Your task to perform on an android device: toggle pop-ups in chrome Image 0: 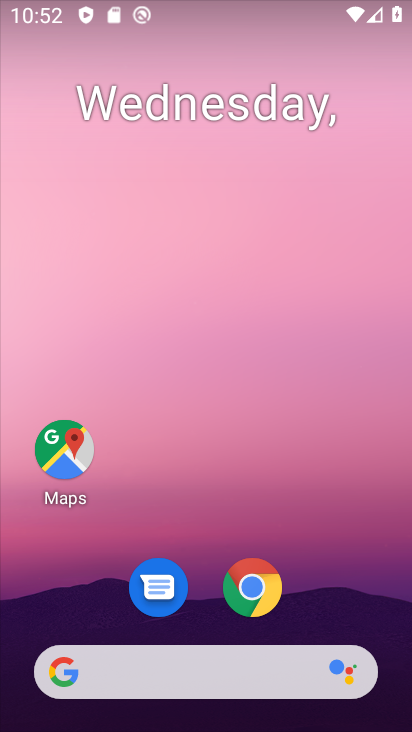
Step 0: click (253, 586)
Your task to perform on an android device: toggle pop-ups in chrome Image 1: 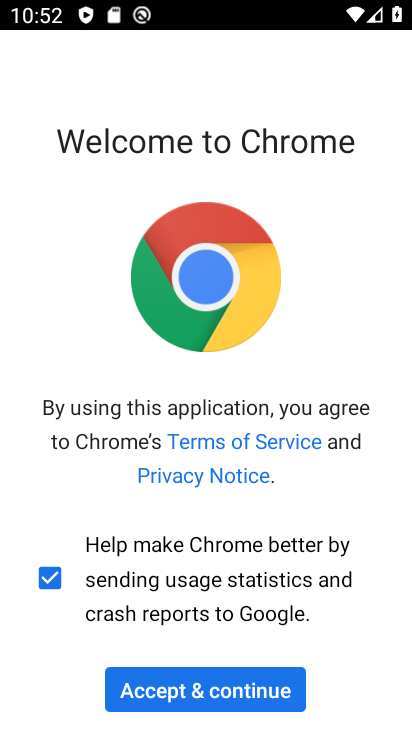
Step 1: click (214, 692)
Your task to perform on an android device: toggle pop-ups in chrome Image 2: 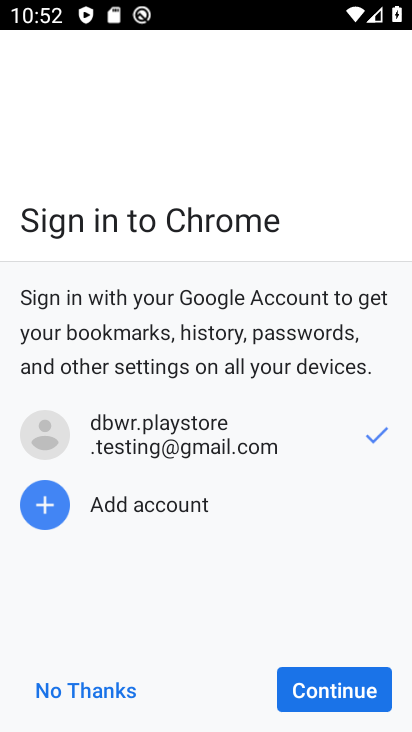
Step 2: click (321, 686)
Your task to perform on an android device: toggle pop-ups in chrome Image 3: 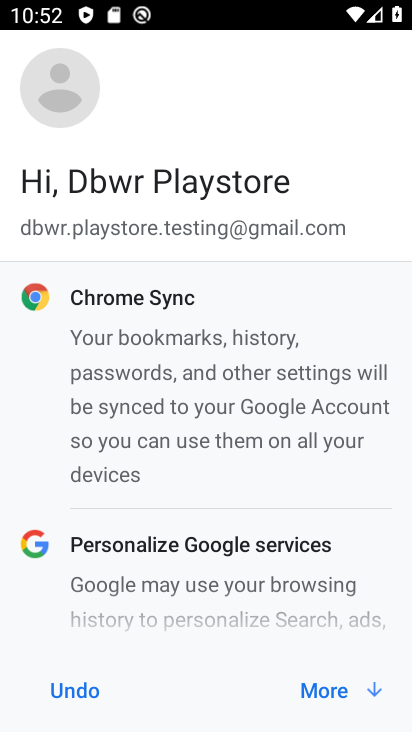
Step 3: click (330, 690)
Your task to perform on an android device: toggle pop-ups in chrome Image 4: 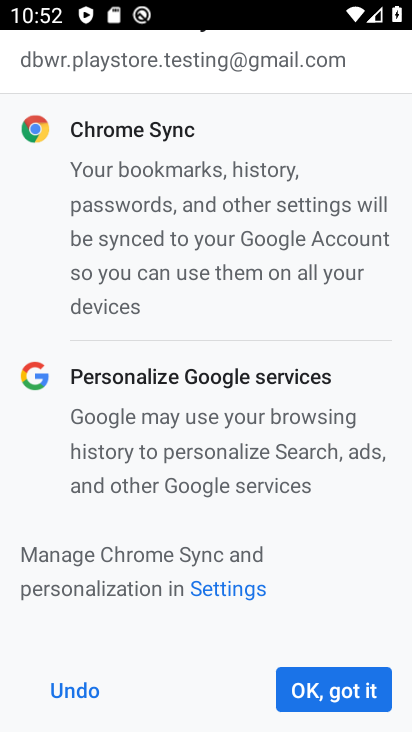
Step 4: click (330, 690)
Your task to perform on an android device: toggle pop-ups in chrome Image 5: 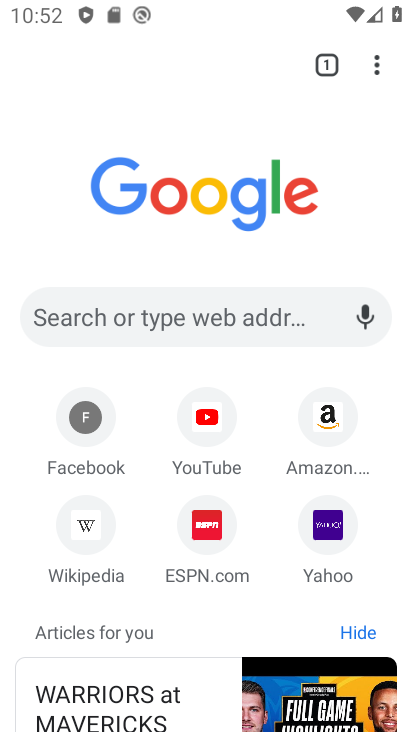
Step 5: click (376, 66)
Your task to perform on an android device: toggle pop-ups in chrome Image 6: 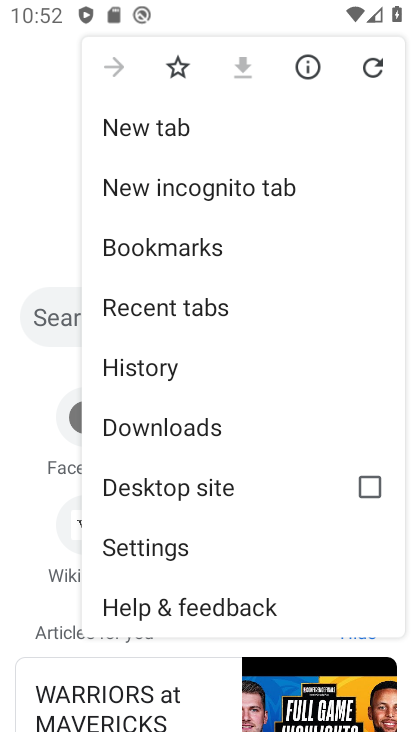
Step 6: click (164, 542)
Your task to perform on an android device: toggle pop-ups in chrome Image 7: 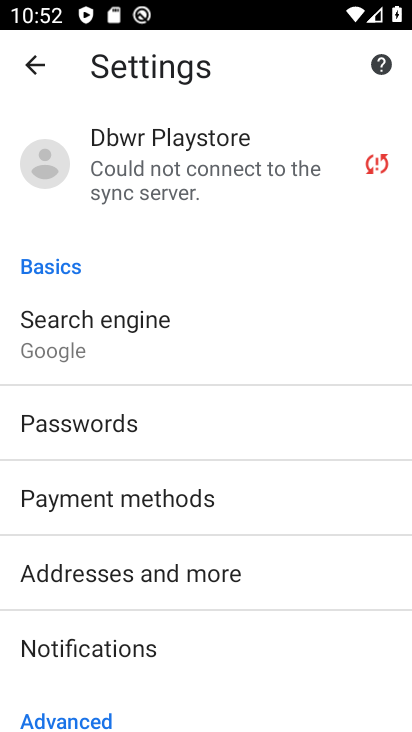
Step 7: drag from (183, 586) to (231, 529)
Your task to perform on an android device: toggle pop-ups in chrome Image 8: 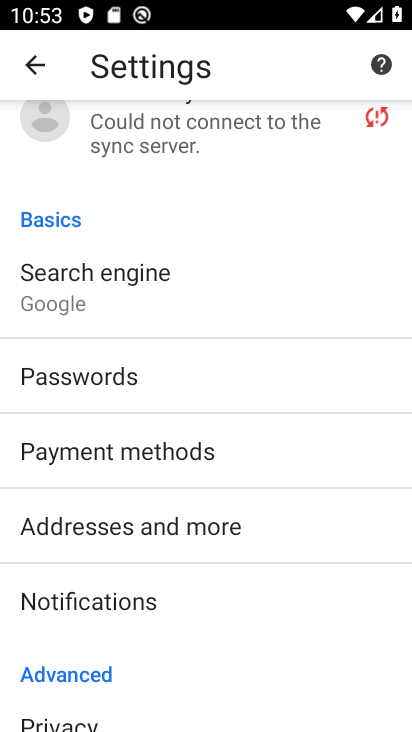
Step 8: drag from (159, 661) to (247, 532)
Your task to perform on an android device: toggle pop-ups in chrome Image 9: 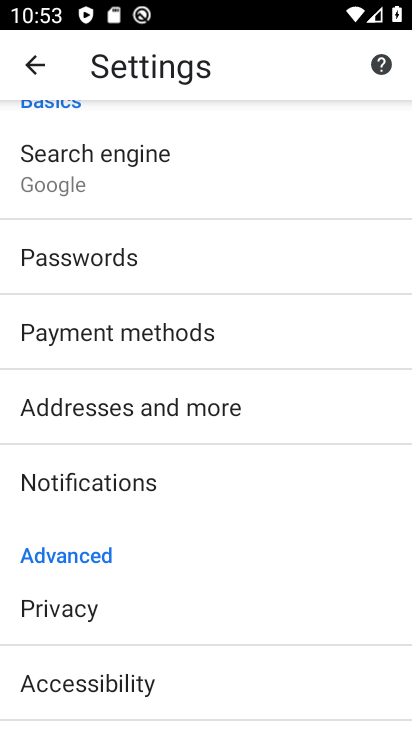
Step 9: drag from (227, 544) to (255, 432)
Your task to perform on an android device: toggle pop-ups in chrome Image 10: 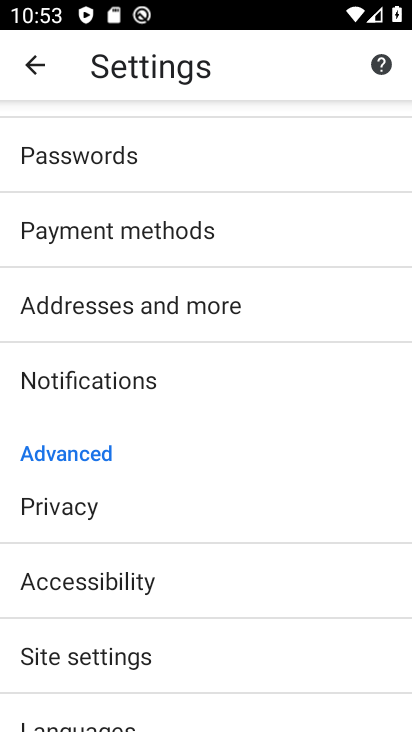
Step 10: click (135, 661)
Your task to perform on an android device: toggle pop-ups in chrome Image 11: 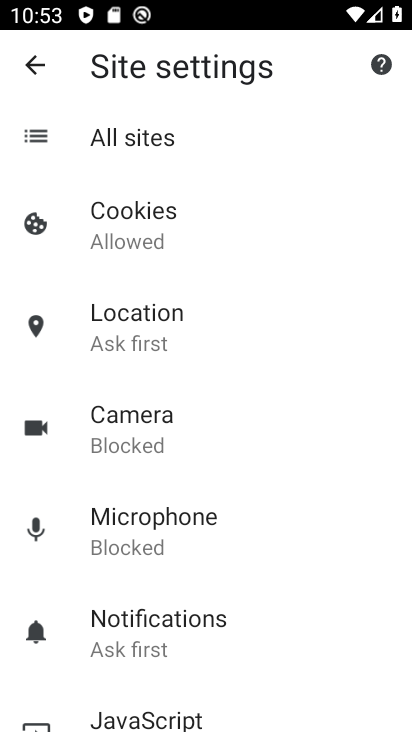
Step 11: drag from (209, 594) to (305, 466)
Your task to perform on an android device: toggle pop-ups in chrome Image 12: 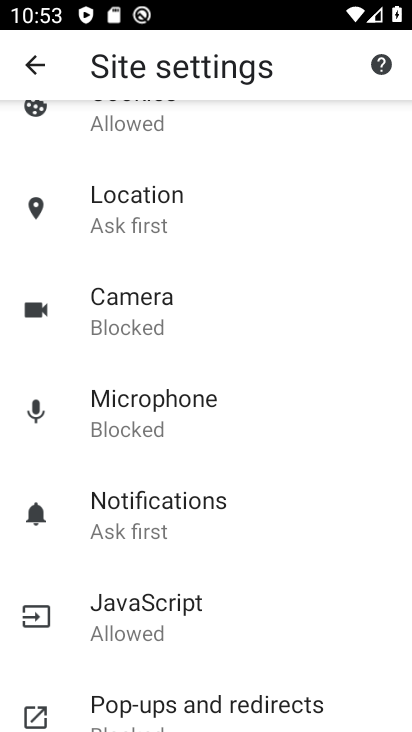
Step 12: drag from (225, 624) to (282, 523)
Your task to perform on an android device: toggle pop-ups in chrome Image 13: 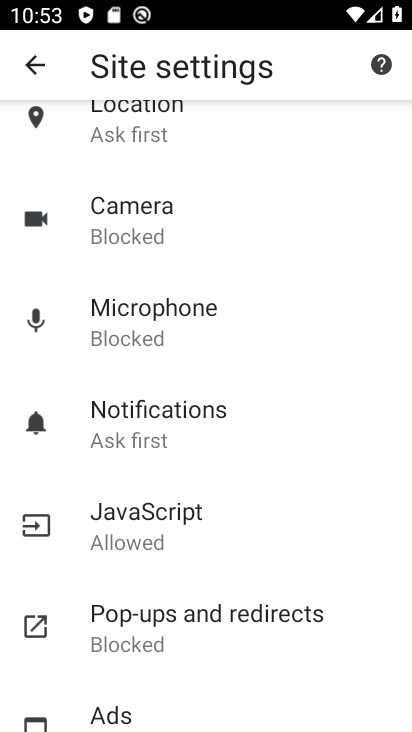
Step 13: click (234, 620)
Your task to perform on an android device: toggle pop-ups in chrome Image 14: 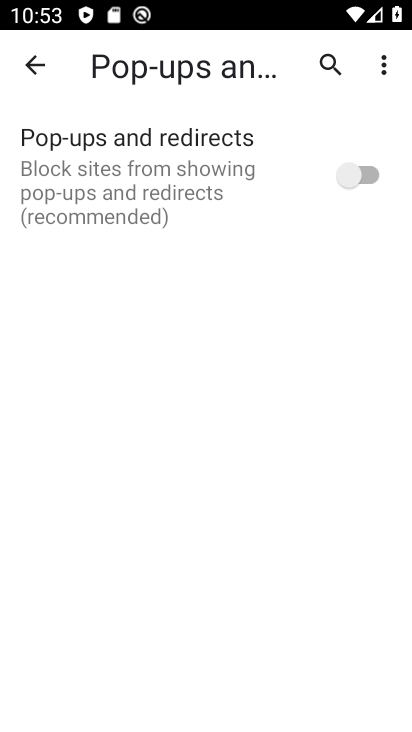
Step 14: click (352, 182)
Your task to perform on an android device: toggle pop-ups in chrome Image 15: 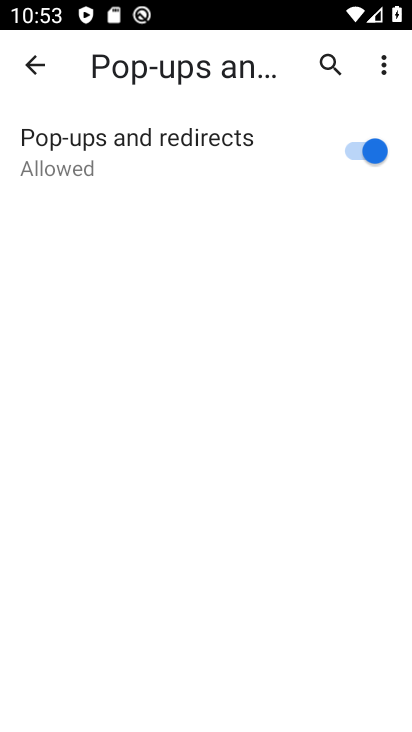
Step 15: task complete